Your task to perform on an android device: manage bookmarks in the chrome app Image 0: 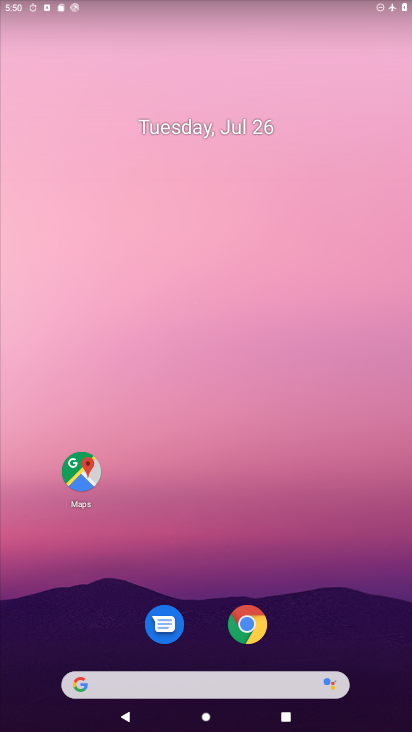
Step 0: drag from (201, 684) to (319, 97)
Your task to perform on an android device: manage bookmarks in the chrome app Image 1: 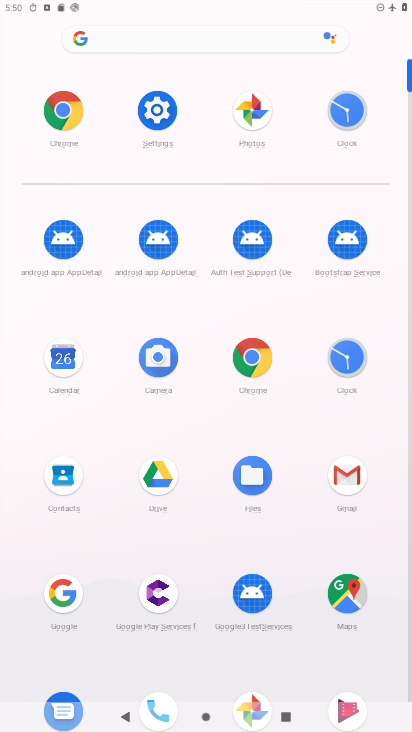
Step 1: click (249, 359)
Your task to perform on an android device: manage bookmarks in the chrome app Image 2: 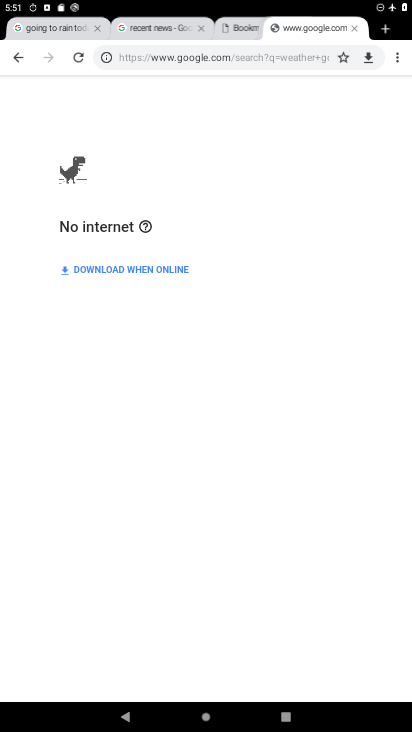
Step 2: click (401, 55)
Your task to perform on an android device: manage bookmarks in the chrome app Image 3: 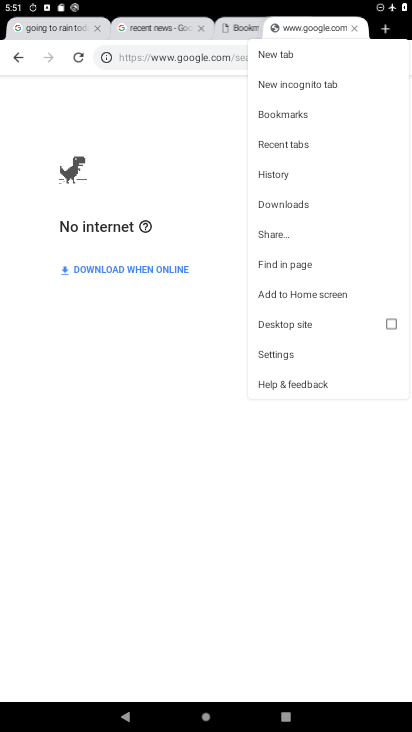
Step 3: click (297, 117)
Your task to perform on an android device: manage bookmarks in the chrome app Image 4: 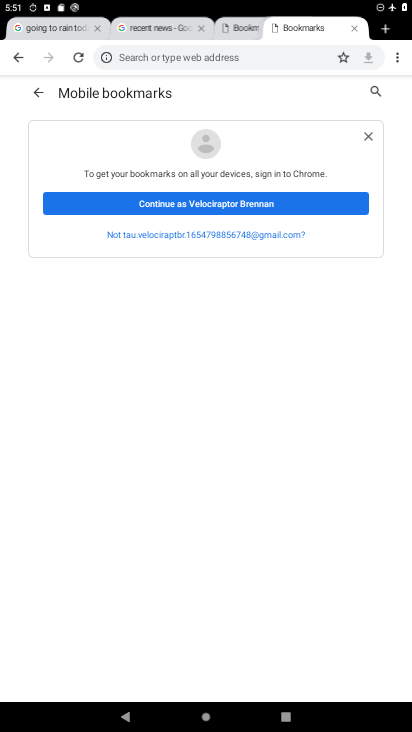
Step 4: task complete